Your task to perform on an android device: find which apps use the phone's location Image 0: 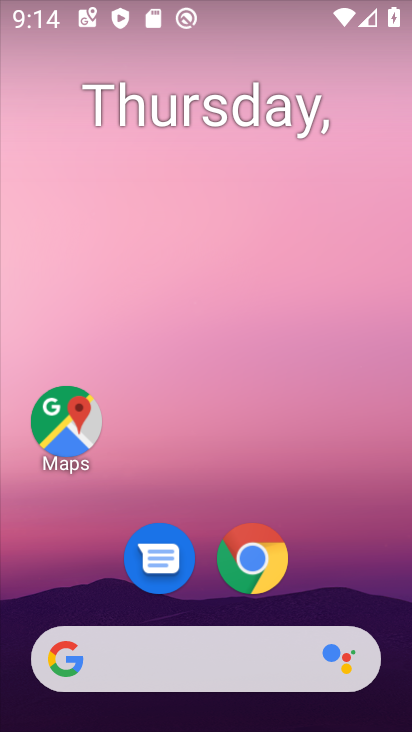
Step 0: drag from (329, 566) to (220, 167)
Your task to perform on an android device: find which apps use the phone's location Image 1: 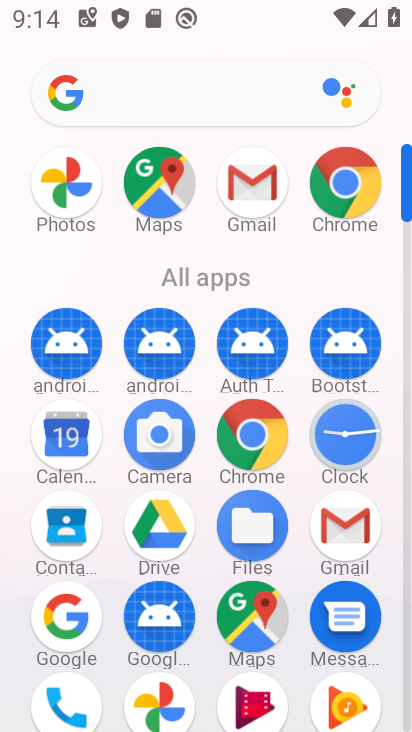
Step 1: drag from (198, 518) to (179, 302)
Your task to perform on an android device: find which apps use the phone's location Image 2: 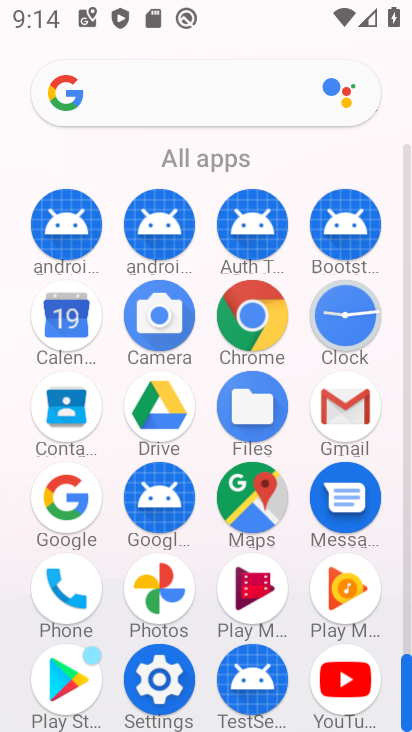
Step 2: click (161, 679)
Your task to perform on an android device: find which apps use the phone's location Image 3: 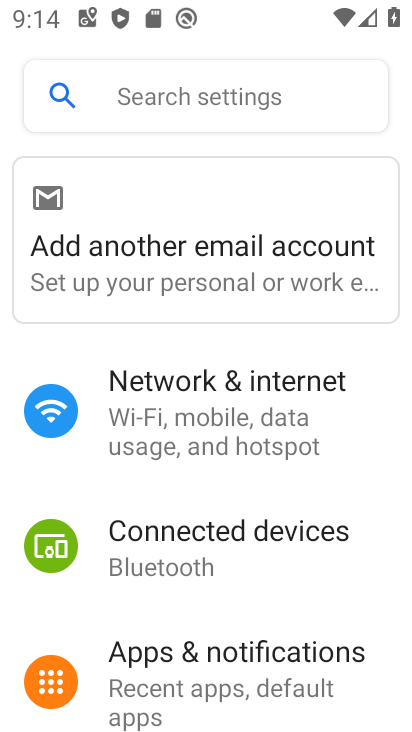
Step 3: drag from (169, 585) to (251, 444)
Your task to perform on an android device: find which apps use the phone's location Image 4: 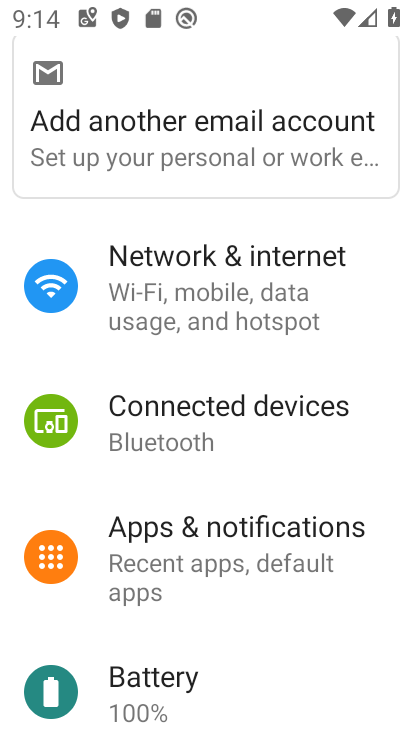
Step 4: drag from (160, 641) to (245, 502)
Your task to perform on an android device: find which apps use the phone's location Image 5: 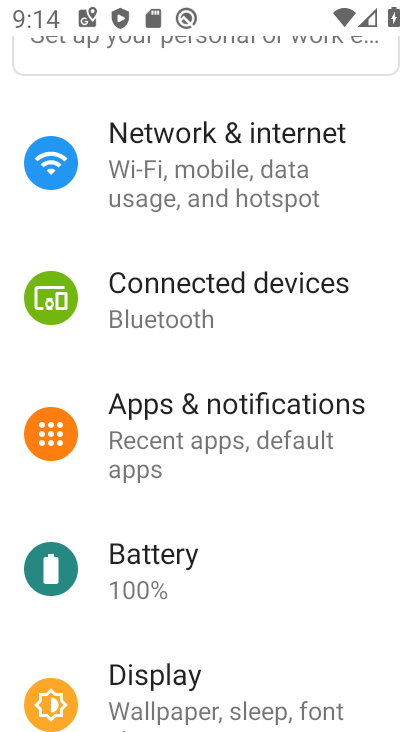
Step 5: drag from (155, 642) to (211, 495)
Your task to perform on an android device: find which apps use the phone's location Image 6: 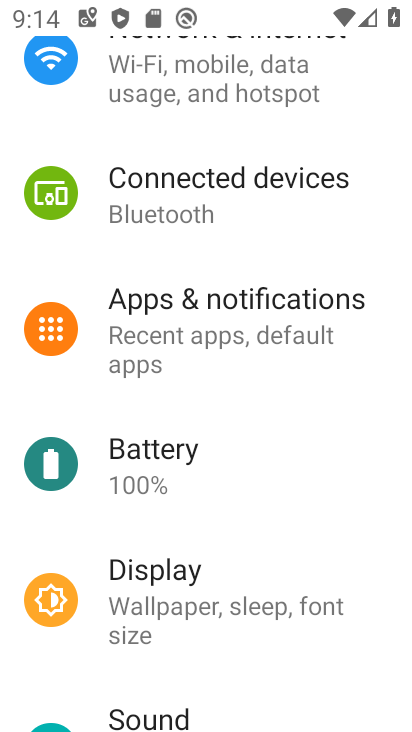
Step 6: drag from (133, 662) to (203, 555)
Your task to perform on an android device: find which apps use the phone's location Image 7: 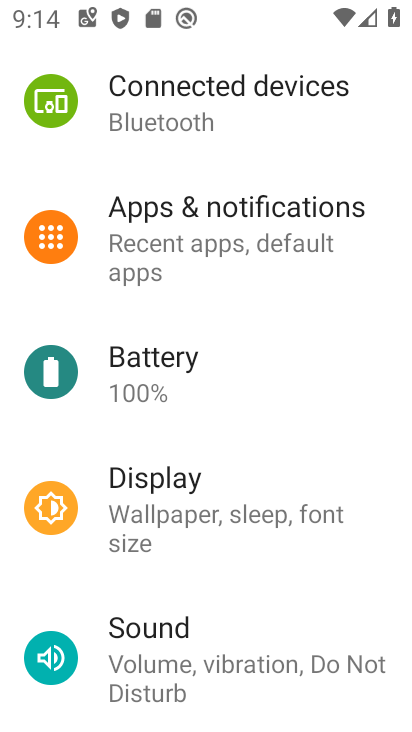
Step 7: drag from (205, 563) to (307, 393)
Your task to perform on an android device: find which apps use the phone's location Image 8: 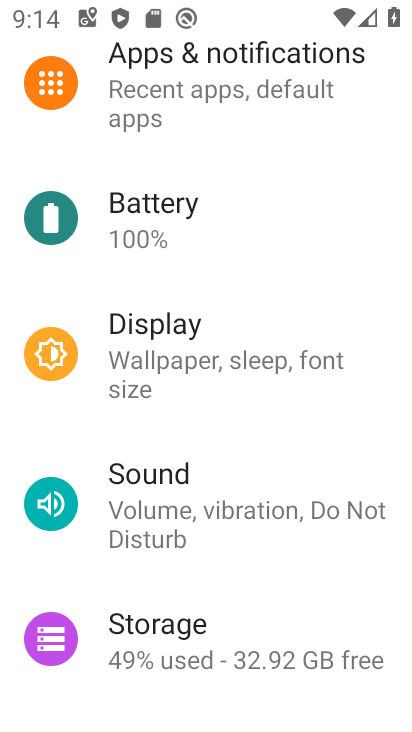
Step 8: drag from (190, 566) to (277, 401)
Your task to perform on an android device: find which apps use the phone's location Image 9: 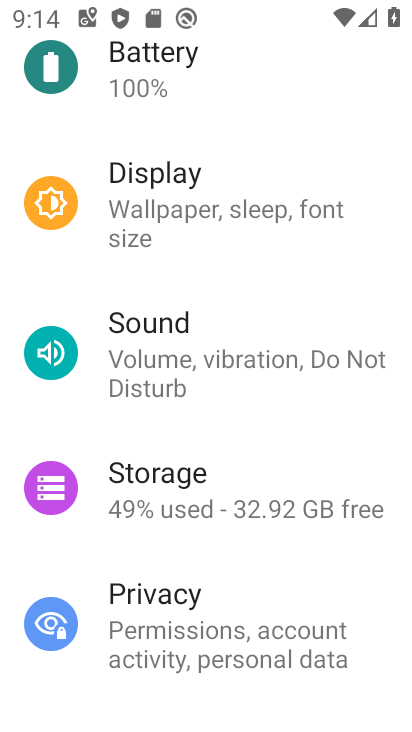
Step 9: drag from (200, 551) to (255, 408)
Your task to perform on an android device: find which apps use the phone's location Image 10: 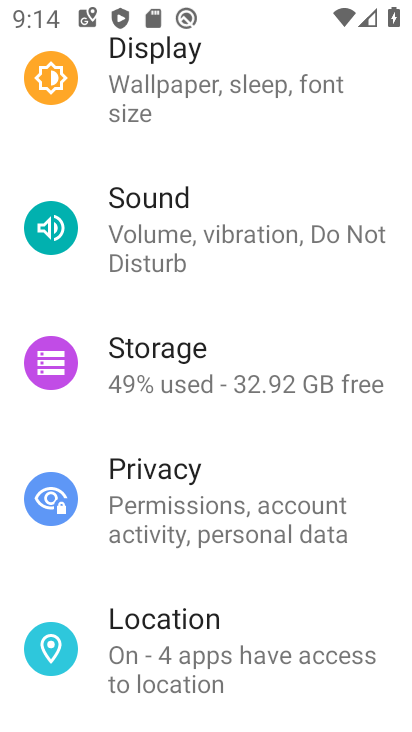
Step 10: drag from (143, 569) to (258, 397)
Your task to perform on an android device: find which apps use the phone's location Image 11: 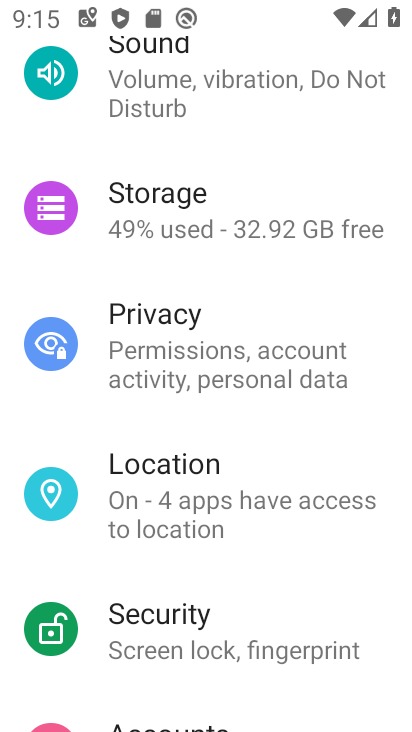
Step 11: click (174, 471)
Your task to perform on an android device: find which apps use the phone's location Image 12: 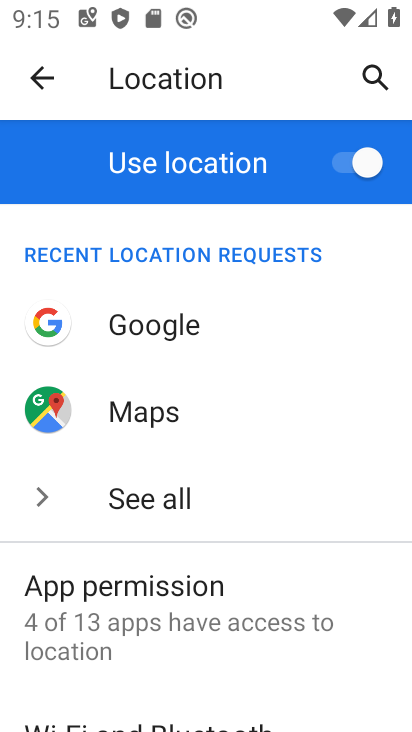
Step 12: drag from (165, 654) to (246, 523)
Your task to perform on an android device: find which apps use the phone's location Image 13: 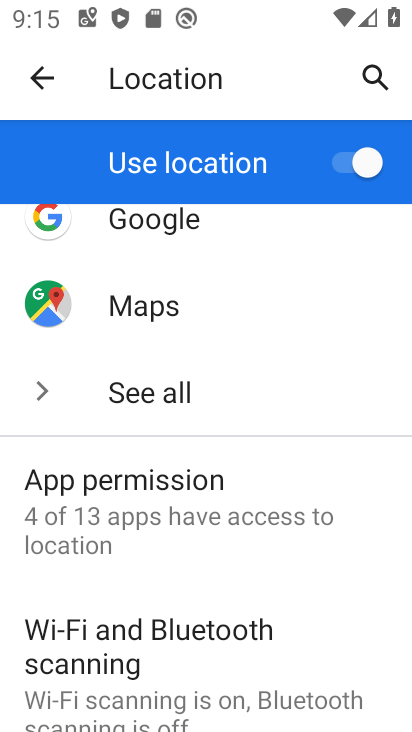
Step 13: click (205, 495)
Your task to perform on an android device: find which apps use the phone's location Image 14: 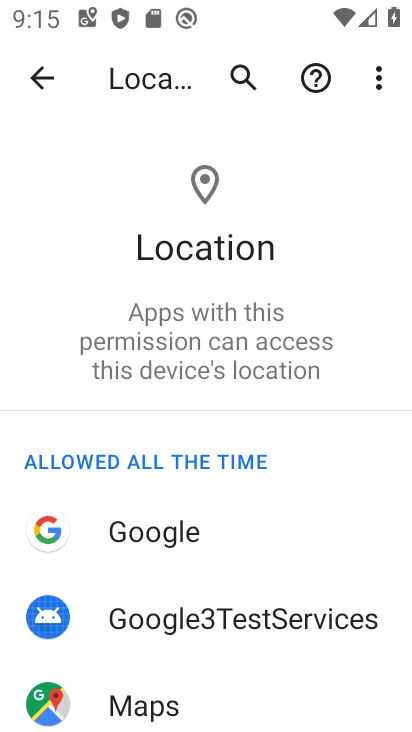
Step 14: drag from (189, 566) to (267, 454)
Your task to perform on an android device: find which apps use the phone's location Image 15: 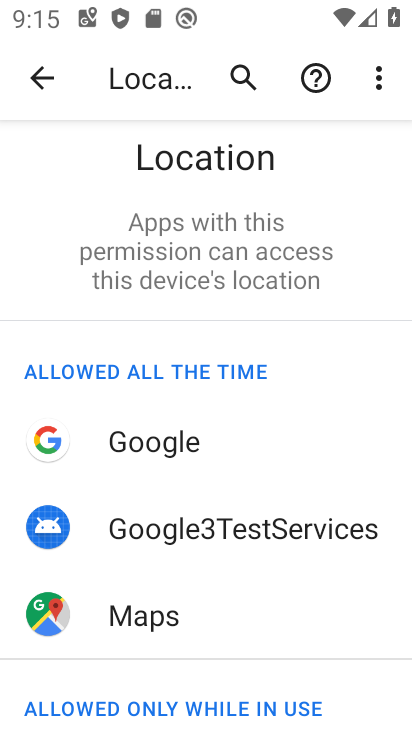
Step 15: click (142, 618)
Your task to perform on an android device: find which apps use the phone's location Image 16: 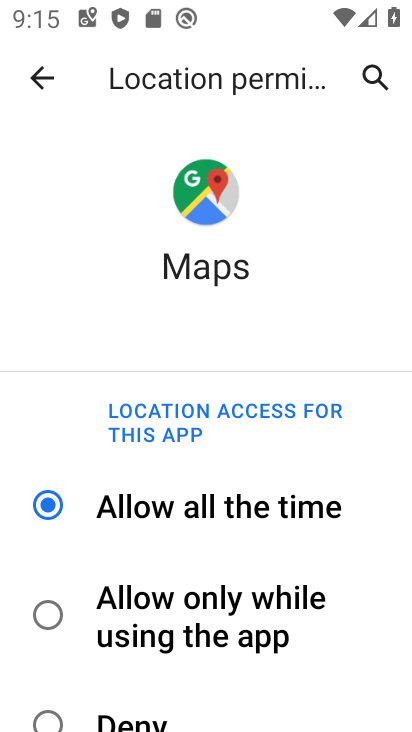
Step 16: task complete